Your task to perform on an android device: set default search engine in the chrome app Image 0: 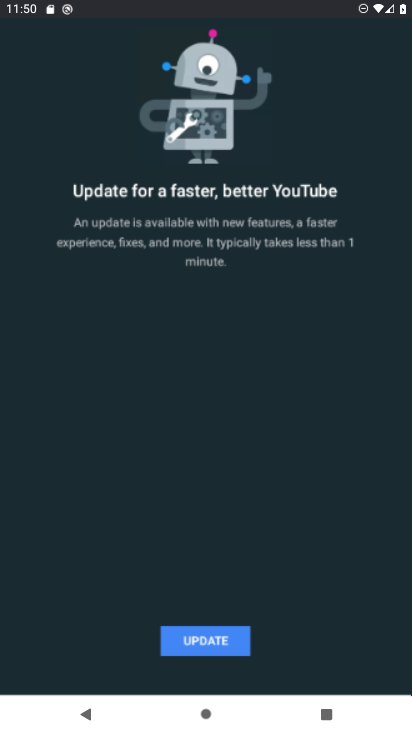
Step 0: press home button
Your task to perform on an android device: set default search engine in the chrome app Image 1: 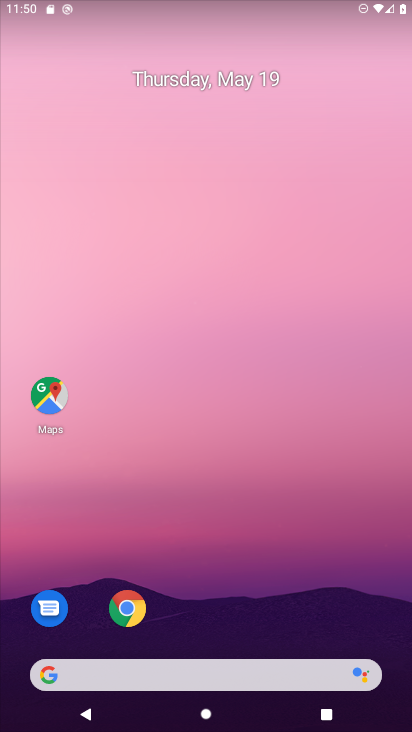
Step 1: click (125, 590)
Your task to perform on an android device: set default search engine in the chrome app Image 2: 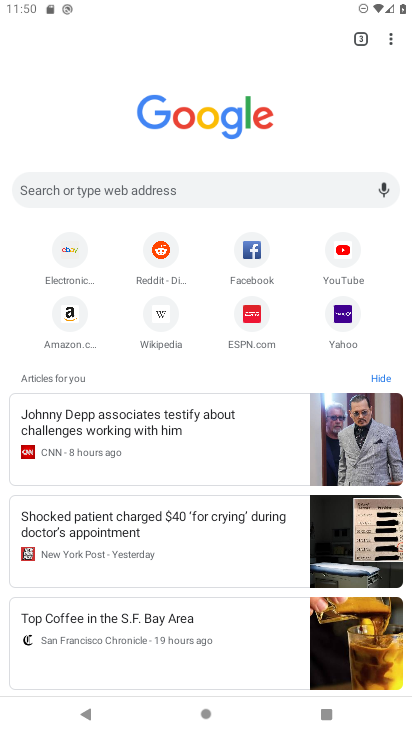
Step 2: drag from (391, 29) to (286, 313)
Your task to perform on an android device: set default search engine in the chrome app Image 3: 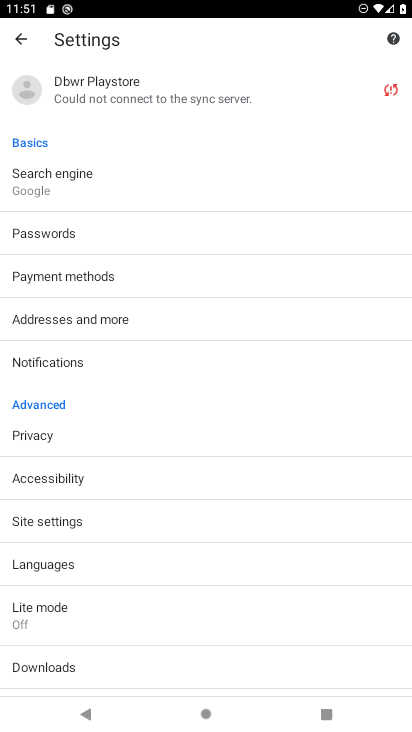
Step 3: click (164, 178)
Your task to perform on an android device: set default search engine in the chrome app Image 4: 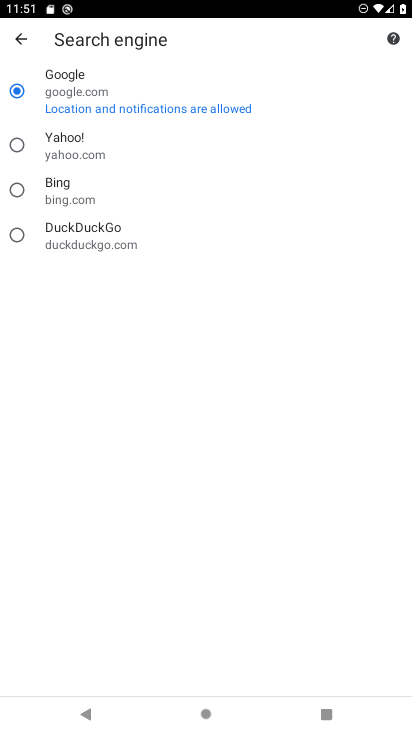
Step 4: task complete